Your task to perform on an android device: check the backup settings in the google photos Image 0: 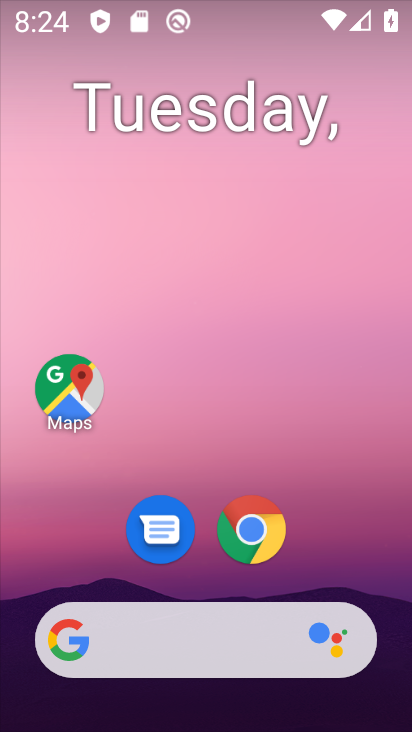
Step 0: drag from (204, 574) to (217, 190)
Your task to perform on an android device: check the backup settings in the google photos Image 1: 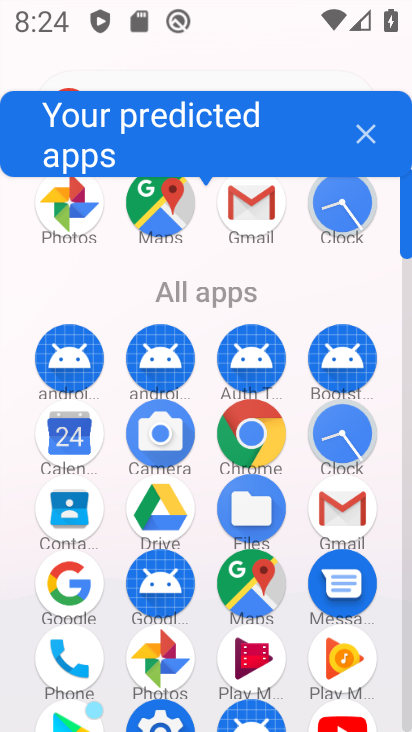
Step 1: click (157, 652)
Your task to perform on an android device: check the backup settings in the google photos Image 2: 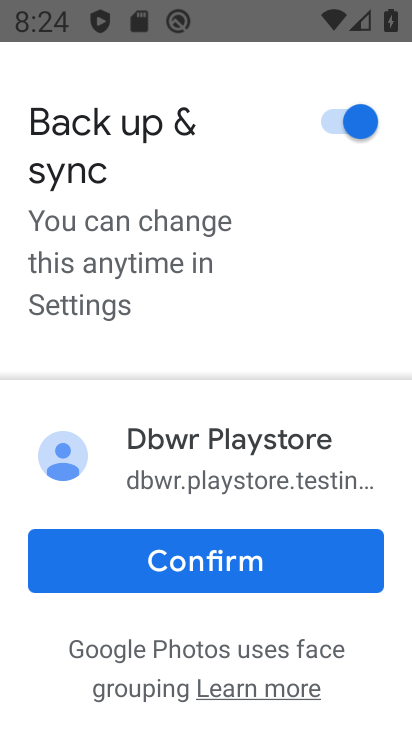
Step 2: click (187, 578)
Your task to perform on an android device: check the backup settings in the google photos Image 3: 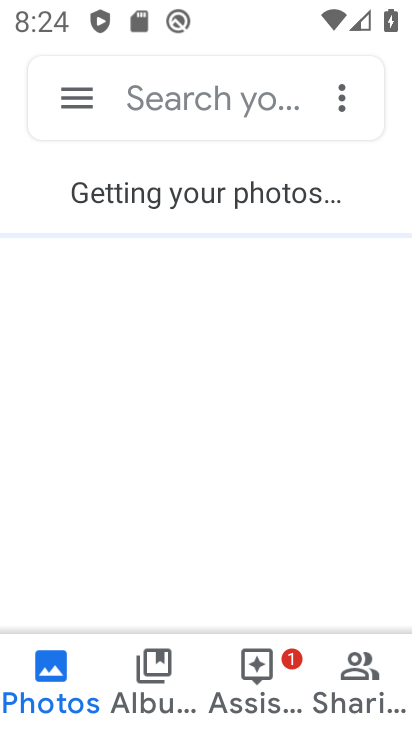
Step 3: click (70, 95)
Your task to perform on an android device: check the backup settings in the google photos Image 4: 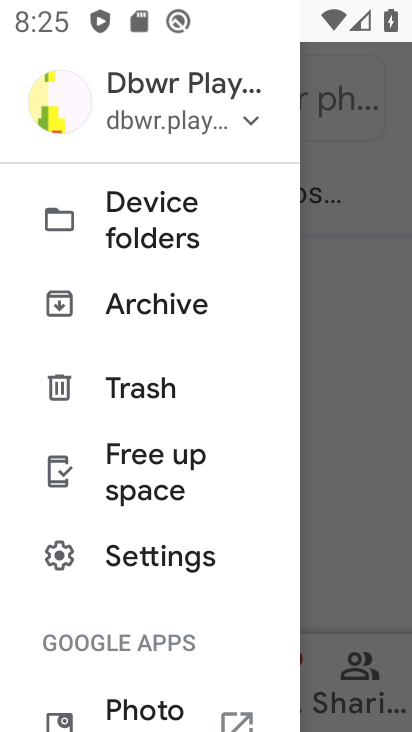
Step 4: click (112, 555)
Your task to perform on an android device: check the backup settings in the google photos Image 5: 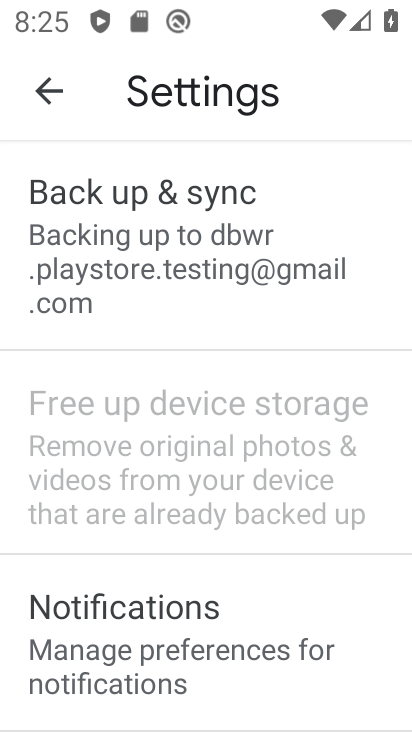
Step 5: click (149, 271)
Your task to perform on an android device: check the backup settings in the google photos Image 6: 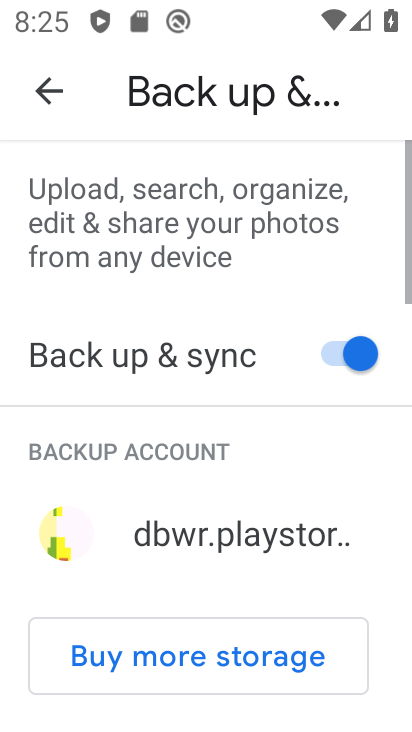
Step 6: task complete